Your task to perform on an android device: Open calendar and show me the third week of next month Image 0: 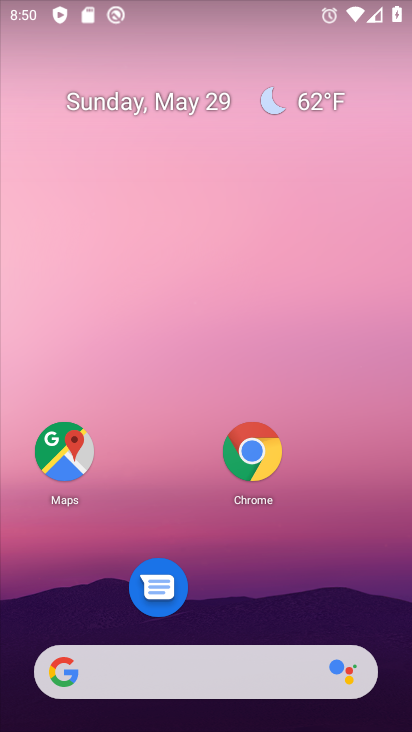
Step 0: click (144, 102)
Your task to perform on an android device: Open calendar and show me the third week of next month Image 1: 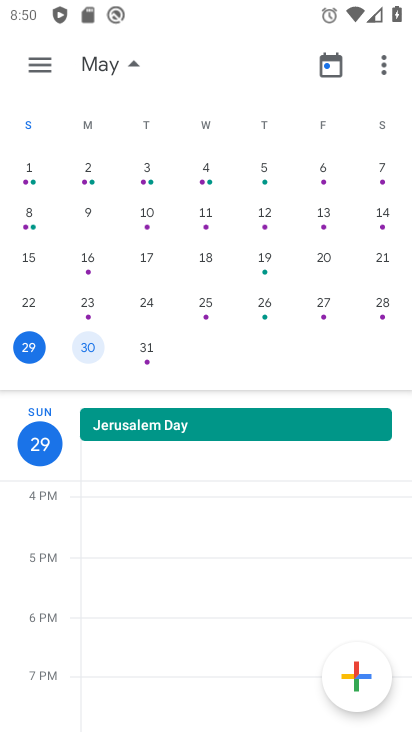
Step 1: click (109, 55)
Your task to perform on an android device: Open calendar and show me the third week of next month Image 2: 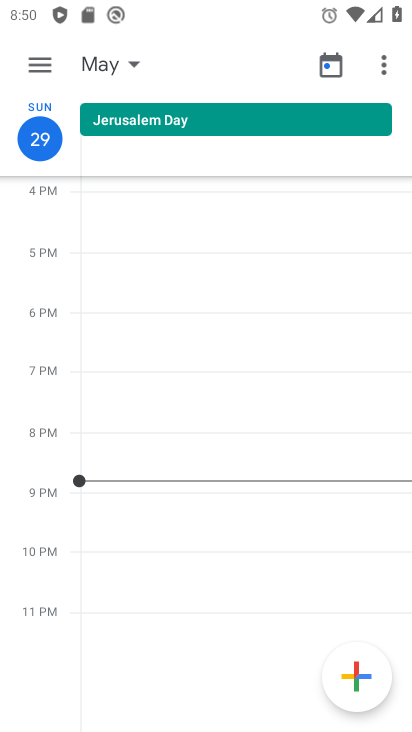
Step 2: click (109, 55)
Your task to perform on an android device: Open calendar and show me the third week of next month Image 3: 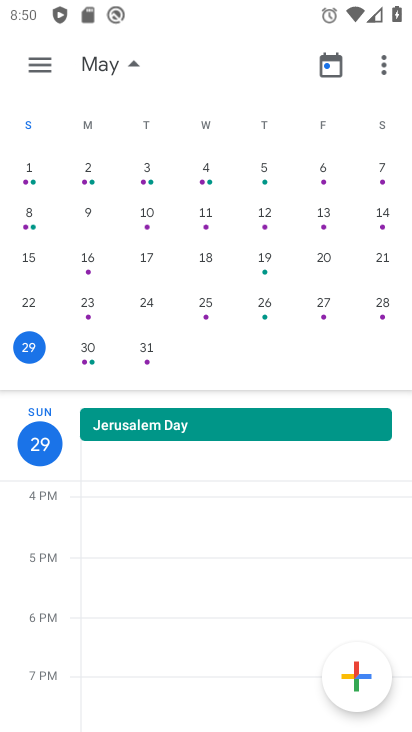
Step 3: drag from (384, 350) to (28, 347)
Your task to perform on an android device: Open calendar and show me the third week of next month Image 4: 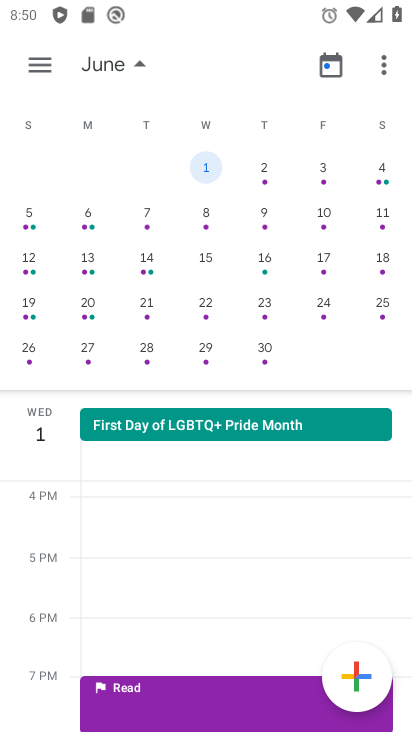
Step 4: click (146, 251)
Your task to perform on an android device: Open calendar and show me the third week of next month Image 5: 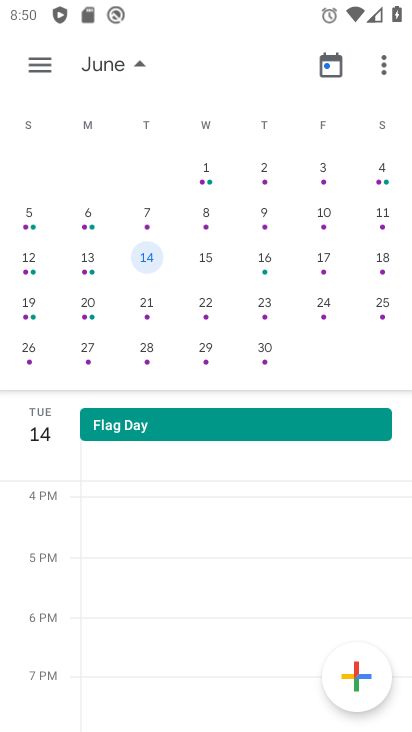
Step 5: task complete